Your task to perform on an android device: Show me recent news Image 0: 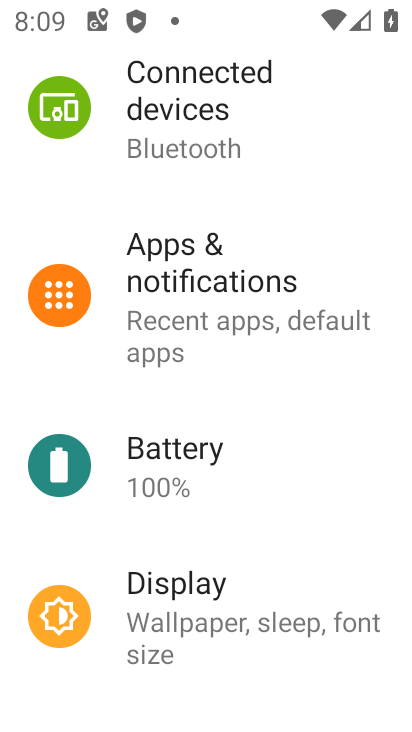
Step 0: press home button
Your task to perform on an android device: Show me recent news Image 1: 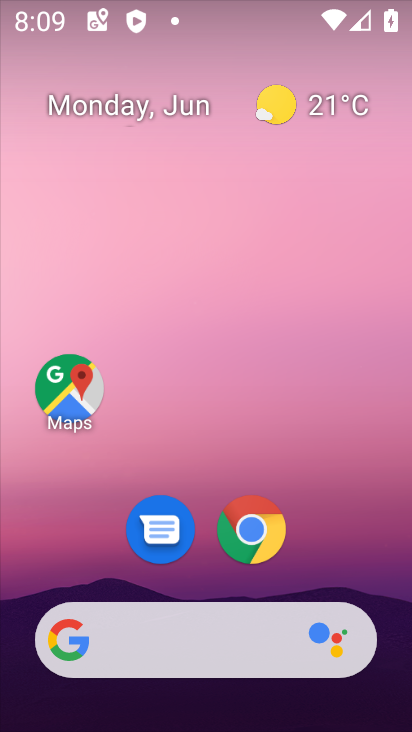
Step 1: click (153, 622)
Your task to perform on an android device: Show me recent news Image 2: 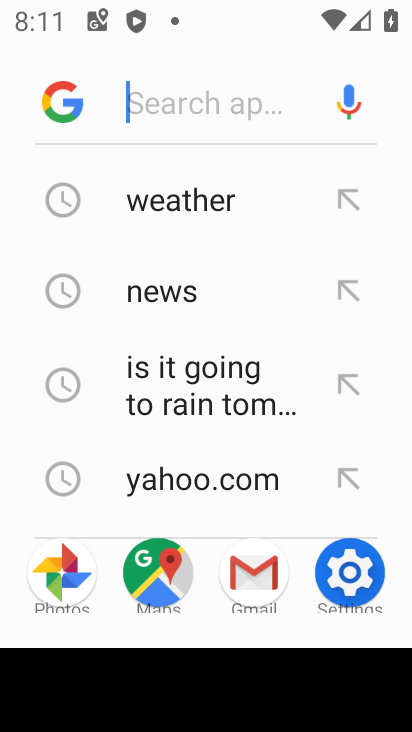
Step 2: type "recent news"
Your task to perform on an android device: Show me recent news Image 3: 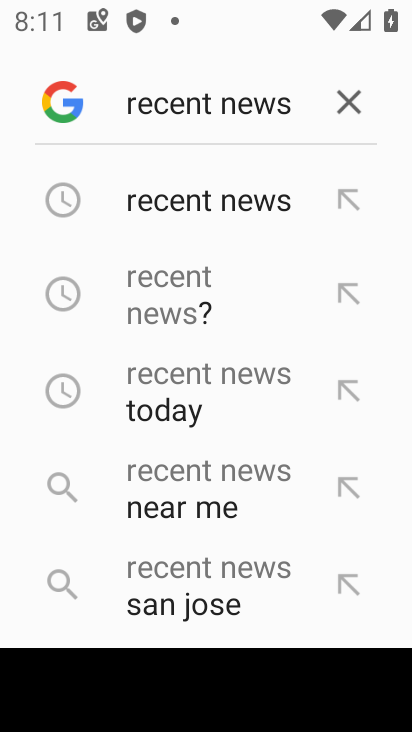
Step 3: click (258, 208)
Your task to perform on an android device: Show me recent news Image 4: 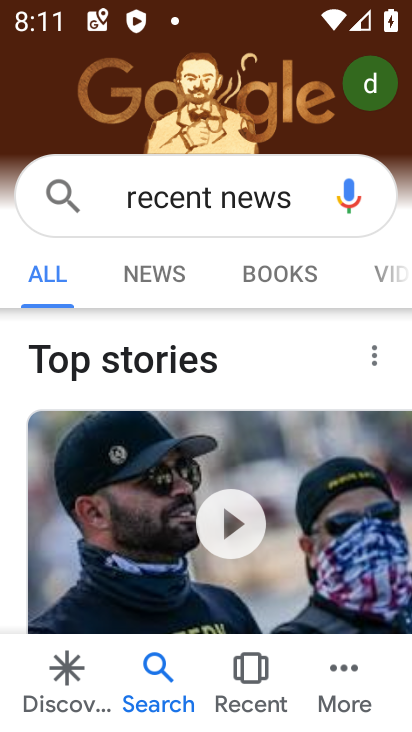
Step 4: task complete